Your task to perform on an android device: all mails in gmail Image 0: 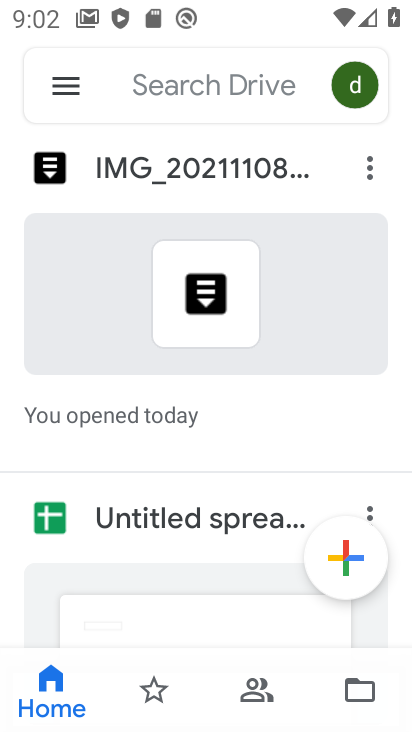
Step 0: press home button
Your task to perform on an android device: all mails in gmail Image 1: 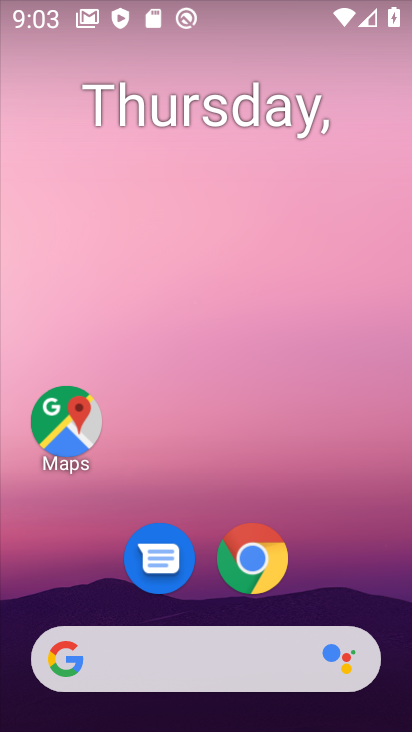
Step 1: drag from (382, 609) to (326, 76)
Your task to perform on an android device: all mails in gmail Image 2: 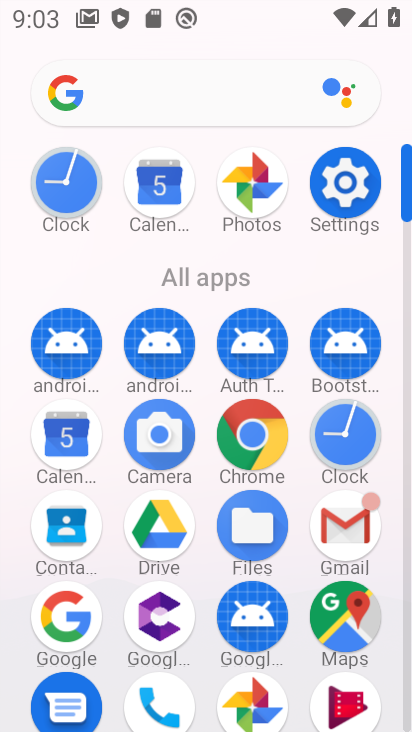
Step 2: click (343, 522)
Your task to perform on an android device: all mails in gmail Image 3: 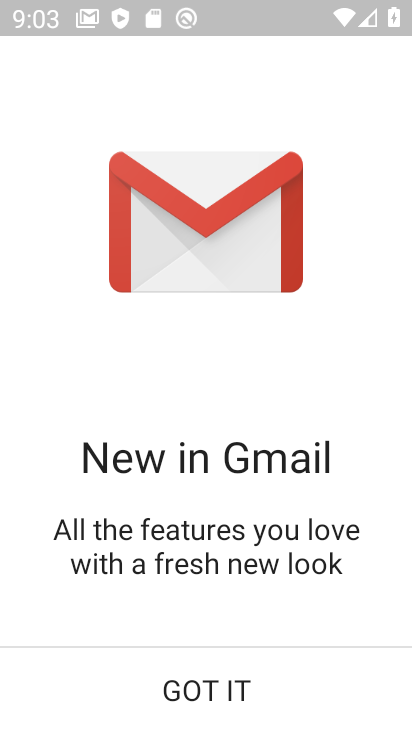
Step 3: click (194, 695)
Your task to perform on an android device: all mails in gmail Image 4: 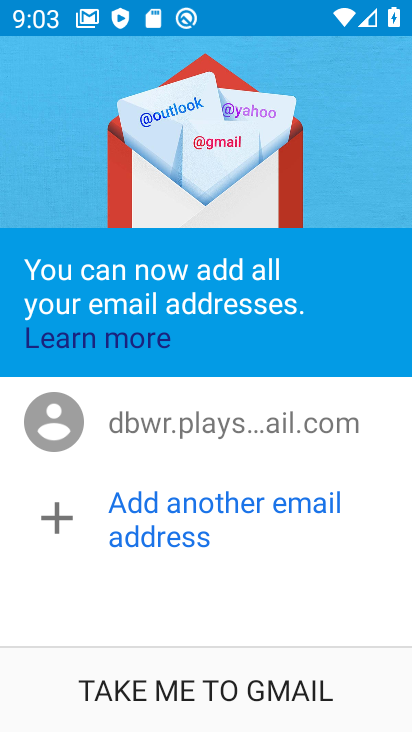
Step 4: click (189, 682)
Your task to perform on an android device: all mails in gmail Image 5: 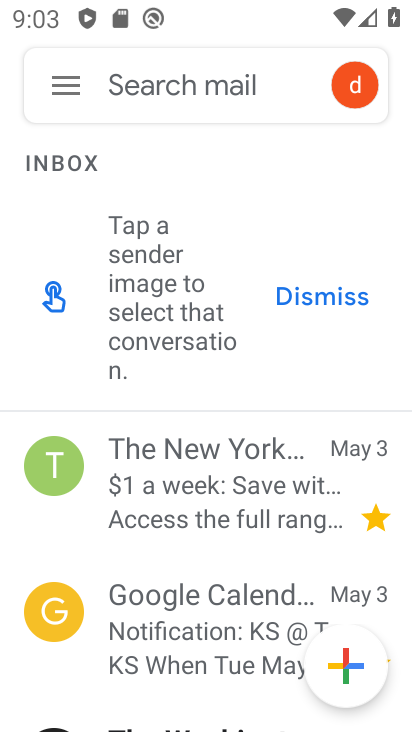
Step 5: click (68, 83)
Your task to perform on an android device: all mails in gmail Image 6: 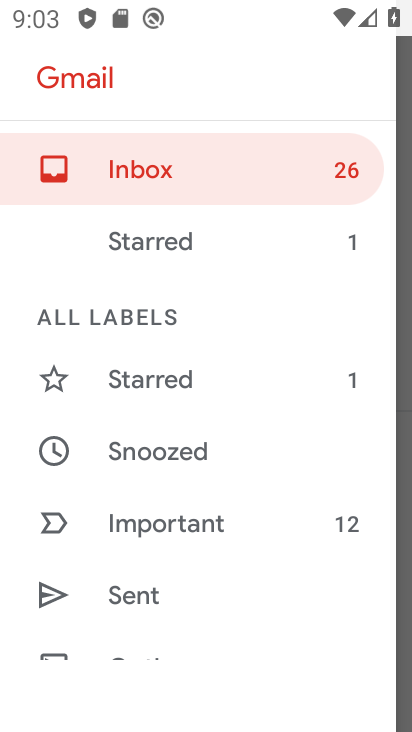
Step 6: drag from (279, 557) to (284, 269)
Your task to perform on an android device: all mails in gmail Image 7: 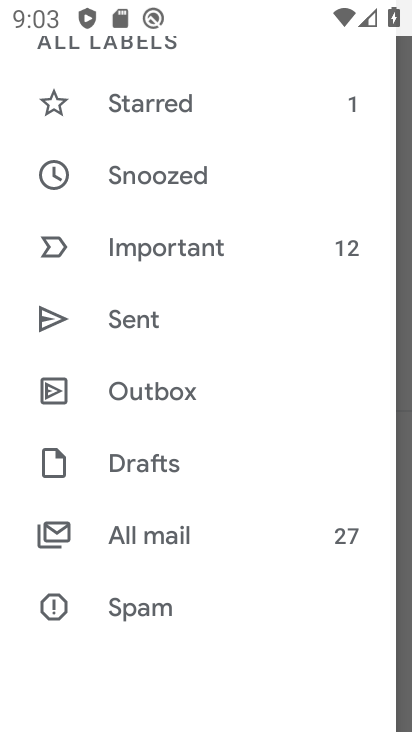
Step 7: click (120, 535)
Your task to perform on an android device: all mails in gmail Image 8: 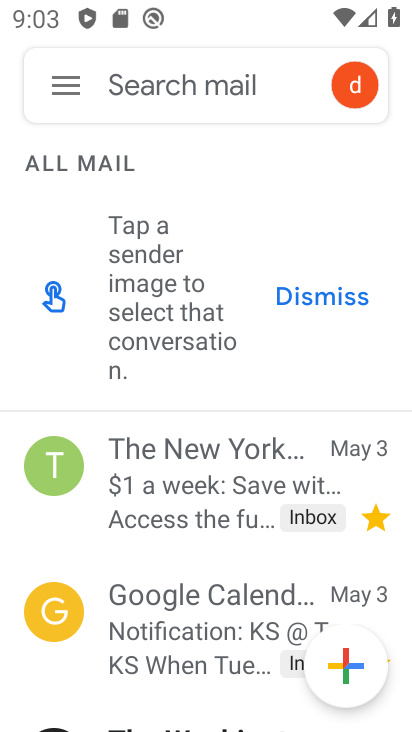
Step 8: task complete